Your task to perform on an android device: delete the emails in spam in the gmail app Image 0: 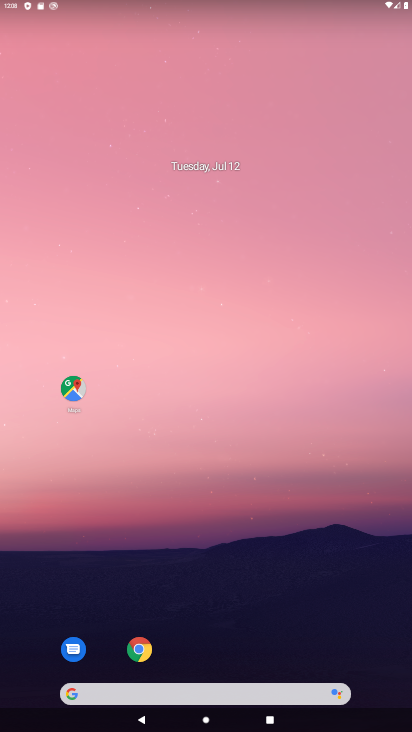
Step 0: drag from (265, 667) to (207, 12)
Your task to perform on an android device: delete the emails in spam in the gmail app Image 1: 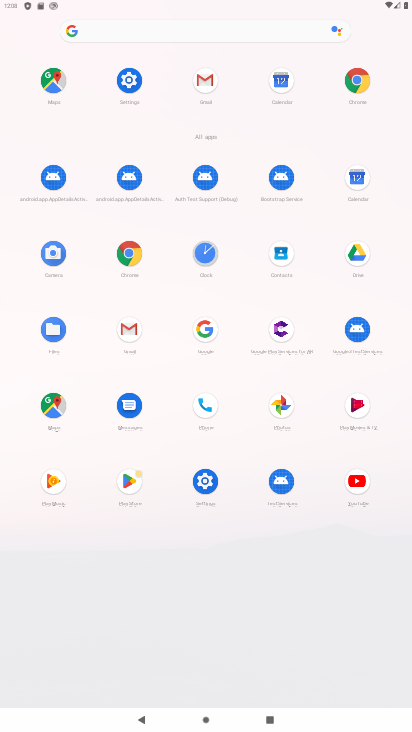
Step 1: click (214, 102)
Your task to perform on an android device: delete the emails in spam in the gmail app Image 2: 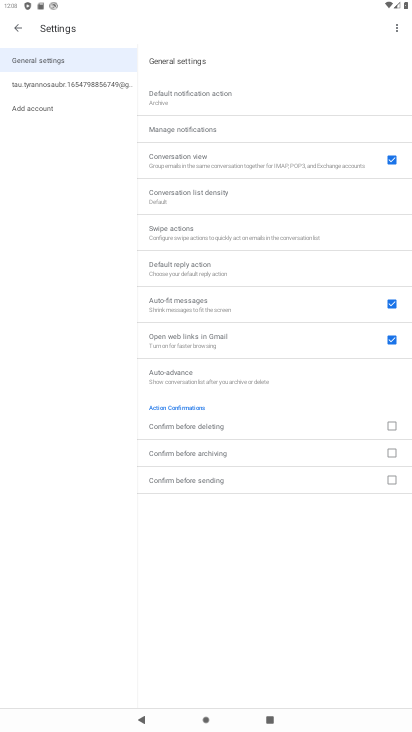
Step 2: press back button
Your task to perform on an android device: delete the emails in spam in the gmail app Image 3: 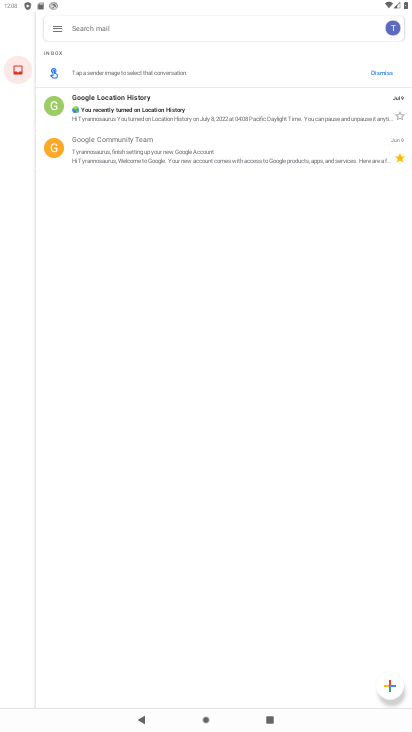
Step 3: click (54, 109)
Your task to perform on an android device: delete the emails in spam in the gmail app Image 4: 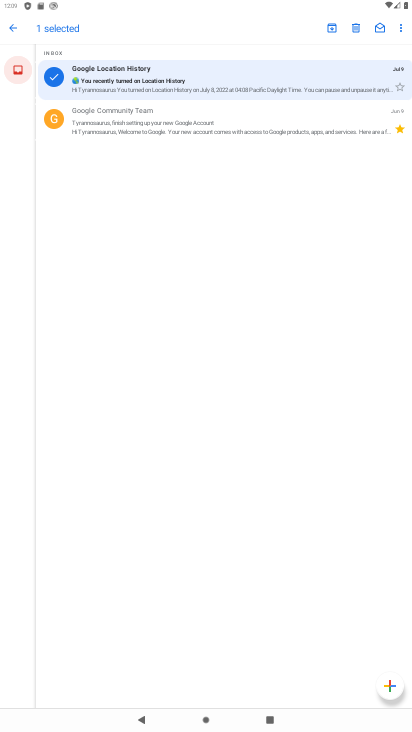
Step 4: click (352, 29)
Your task to perform on an android device: delete the emails in spam in the gmail app Image 5: 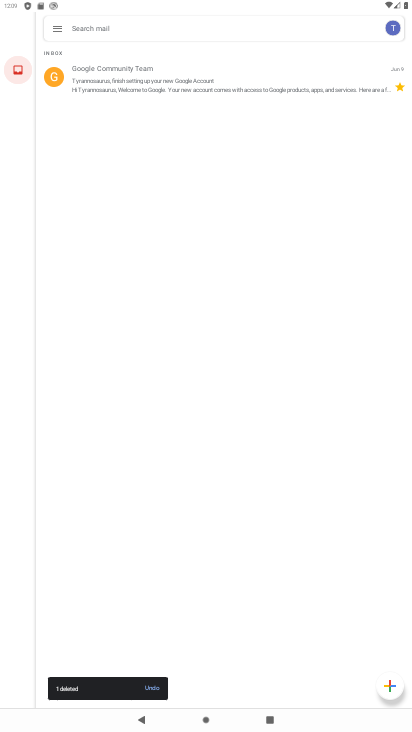
Step 5: task complete